Your task to perform on an android device: Open network settings Image 0: 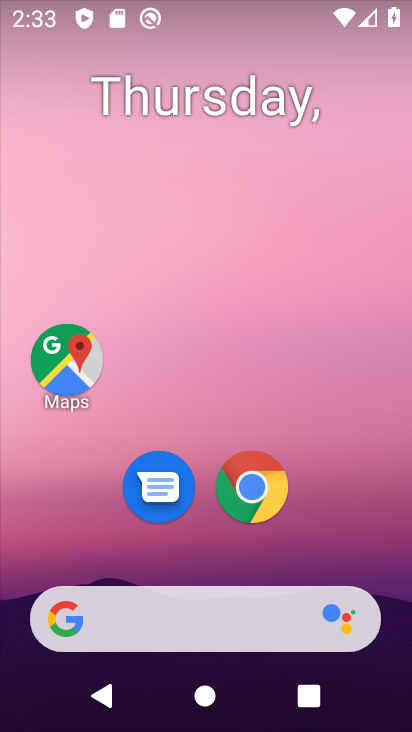
Step 0: drag from (348, 441) to (349, 75)
Your task to perform on an android device: Open network settings Image 1: 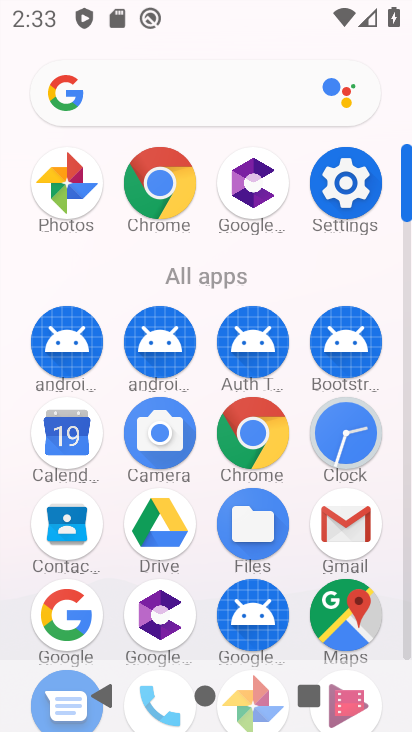
Step 1: click (325, 202)
Your task to perform on an android device: Open network settings Image 2: 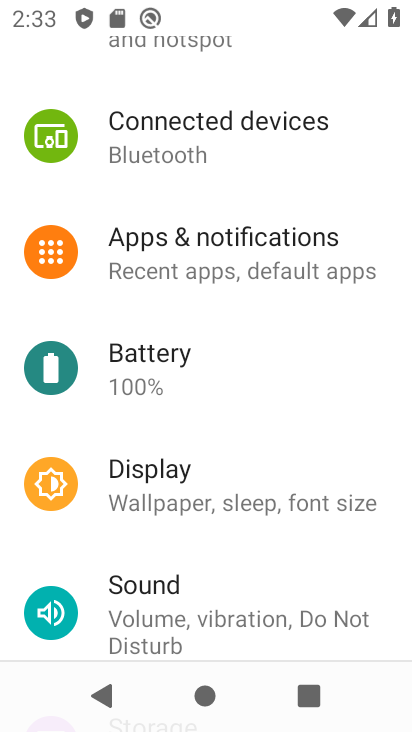
Step 2: drag from (131, 217) to (166, 591)
Your task to perform on an android device: Open network settings Image 3: 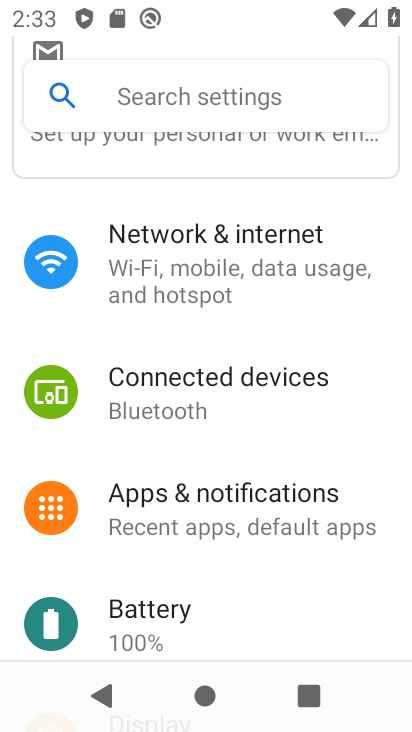
Step 3: click (237, 265)
Your task to perform on an android device: Open network settings Image 4: 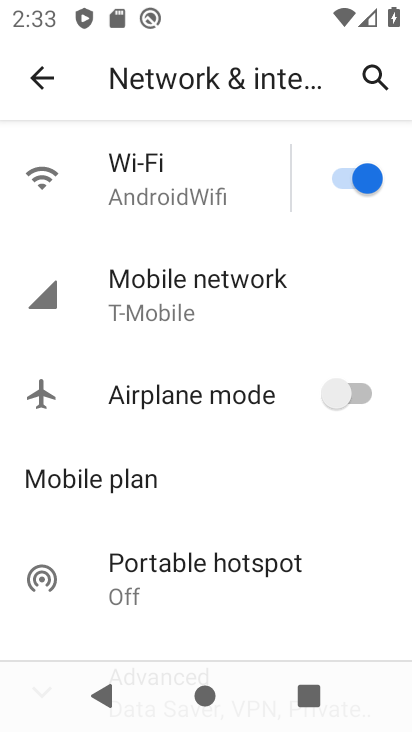
Step 4: task complete